Your task to perform on an android device: open app "LinkedIn" (install if not already installed) Image 0: 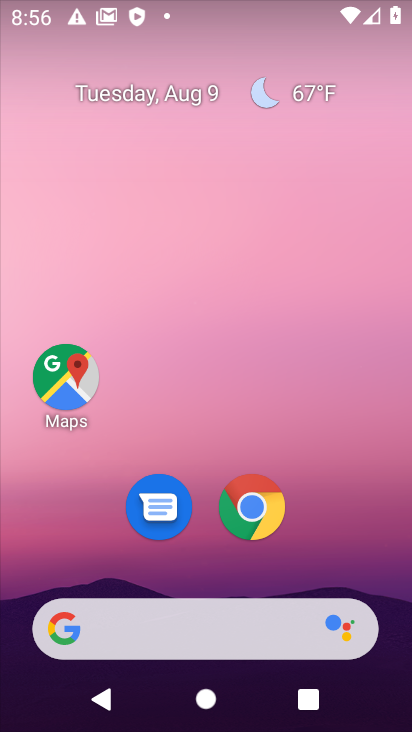
Step 0: drag from (139, 613) to (219, 0)
Your task to perform on an android device: open app "LinkedIn" (install if not already installed) Image 1: 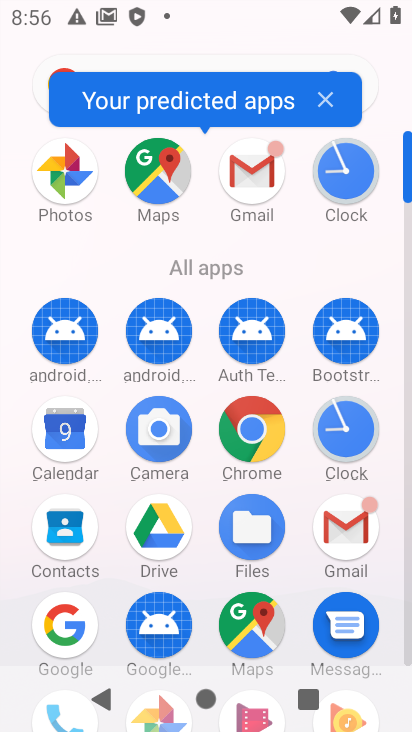
Step 1: drag from (268, 425) to (297, 169)
Your task to perform on an android device: open app "LinkedIn" (install if not already installed) Image 2: 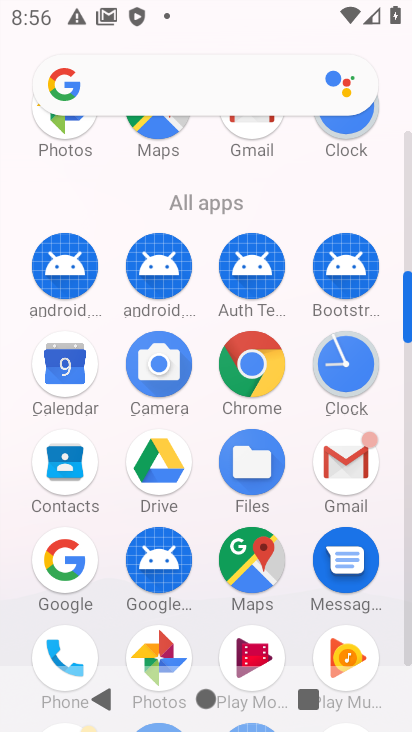
Step 2: drag from (214, 632) to (300, 113)
Your task to perform on an android device: open app "LinkedIn" (install if not already installed) Image 3: 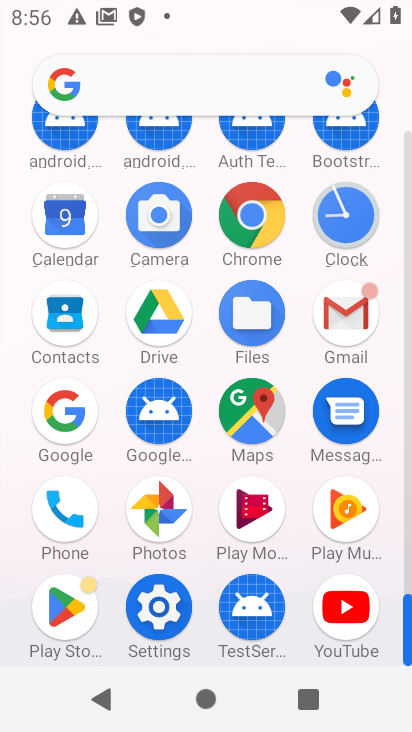
Step 3: click (55, 596)
Your task to perform on an android device: open app "LinkedIn" (install if not already installed) Image 4: 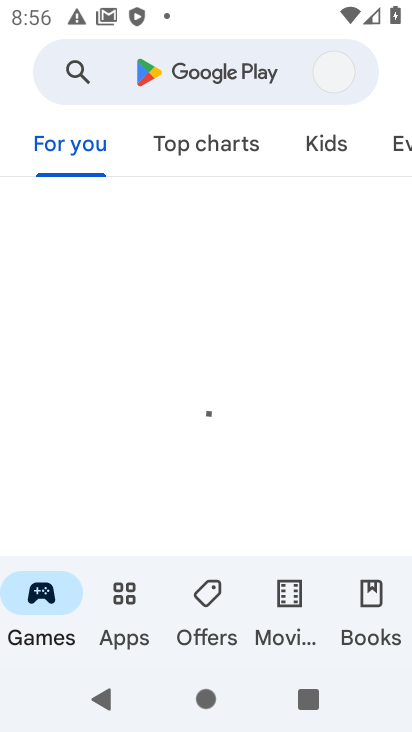
Step 4: click (215, 80)
Your task to perform on an android device: open app "LinkedIn" (install if not already installed) Image 5: 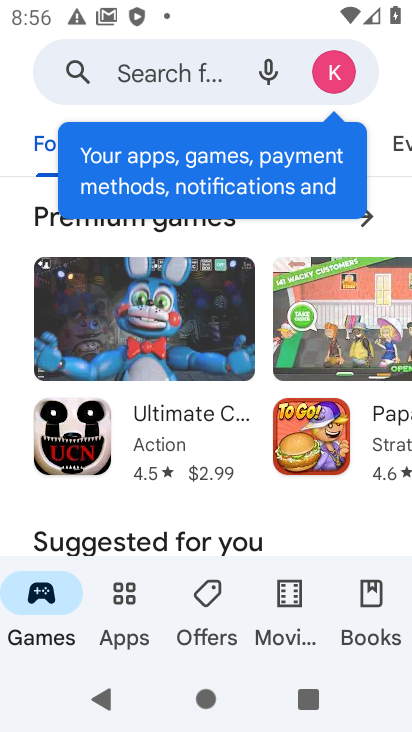
Step 5: click (156, 73)
Your task to perform on an android device: open app "LinkedIn" (install if not already installed) Image 6: 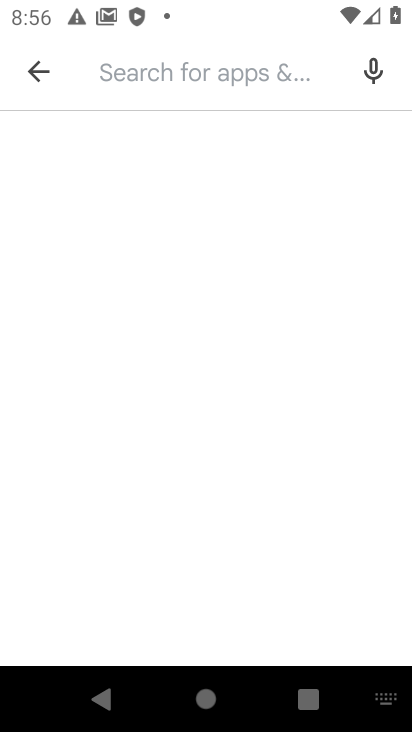
Step 6: type "LinkedIn"
Your task to perform on an android device: open app "LinkedIn" (install if not already installed) Image 7: 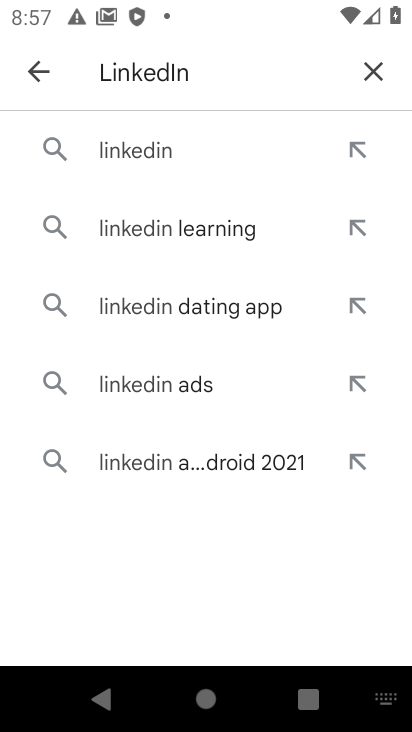
Step 7: click (152, 154)
Your task to perform on an android device: open app "LinkedIn" (install if not already installed) Image 8: 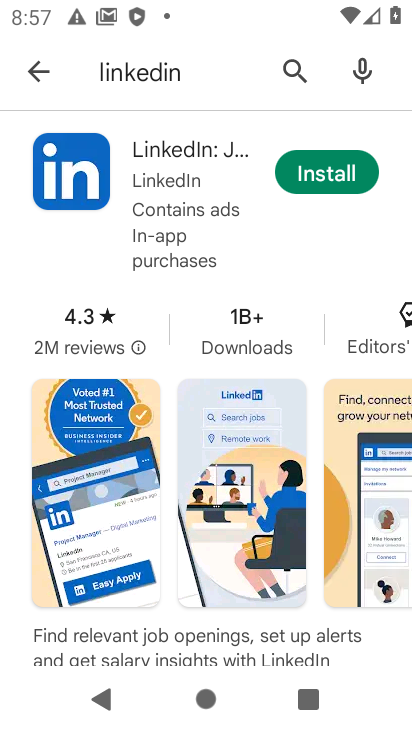
Step 8: click (303, 178)
Your task to perform on an android device: open app "LinkedIn" (install if not already installed) Image 9: 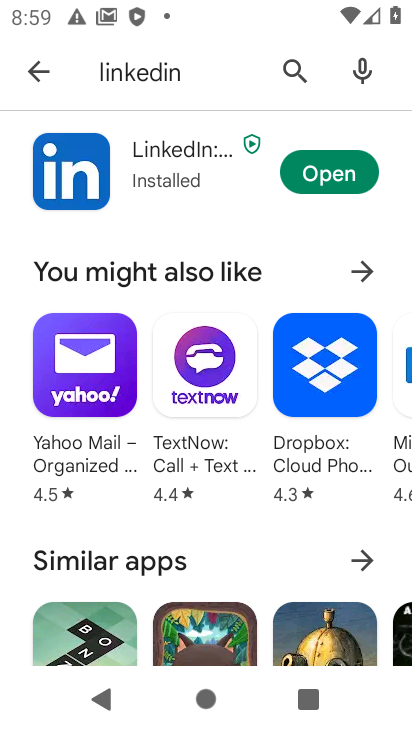
Step 9: click (360, 180)
Your task to perform on an android device: open app "LinkedIn" (install if not already installed) Image 10: 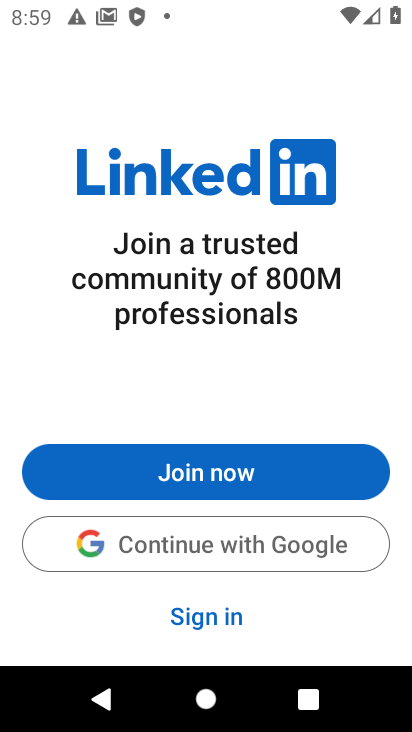
Step 10: click (189, 569)
Your task to perform on an android device: open app "LinkedIn" (install if not already installed) Image 11: 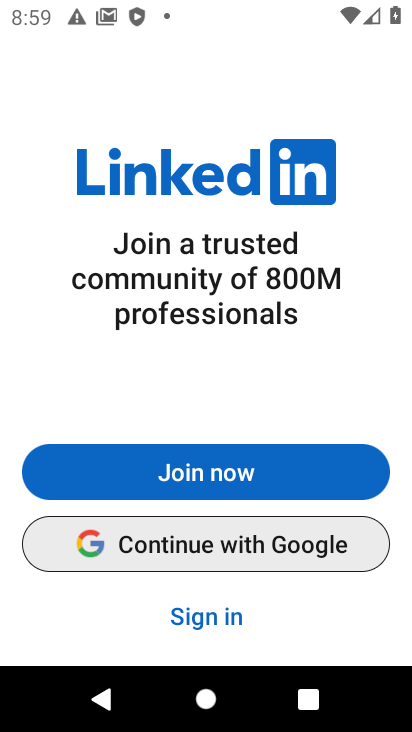
Step 11: click (185, 556)
Your task to perform on an android device: open app "LinkedIn" (install if not already installed) Image 12: 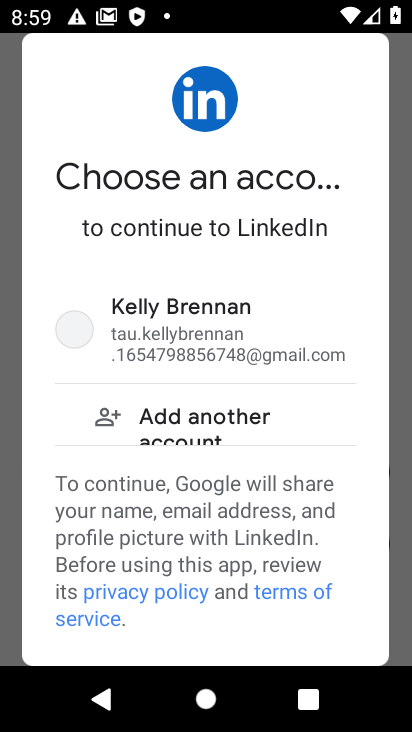
Step 12: drag from (159, 581) to (224, 237)
Your task to perform on an android device: open app "LinkedIn" (install if not already installed) Image 13: 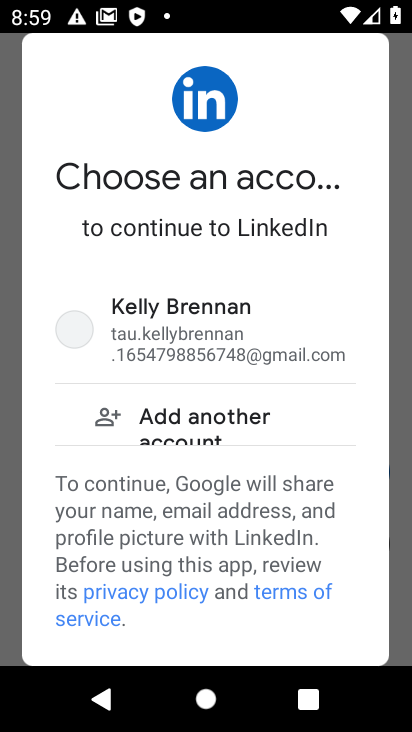
Step 13: click (161, 315)
Your task to perform on an android device: open app "LinkedIn" (install if not already installed) Image 14: 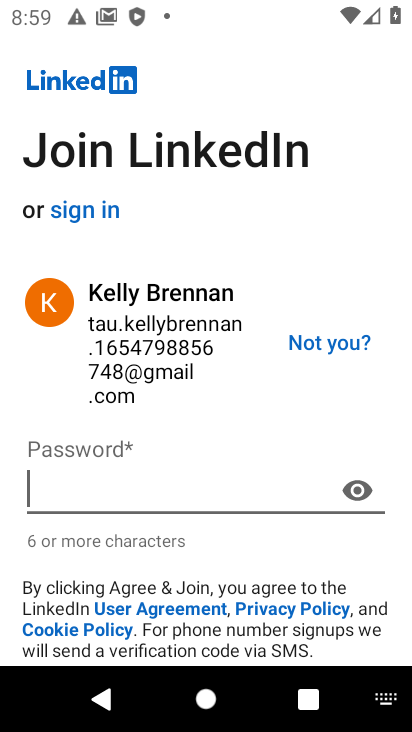
Step 14: drag from (129, 603) to (182, 273)
Your task to perform on an android device: open app "LinkedIn" (install if not already installed) Image 15: 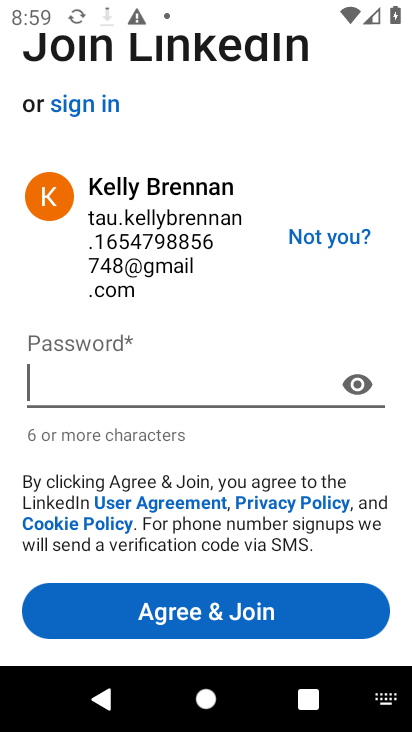
Step 15: drag from (182, 277) to (130, 504)
Your task to perform on an android device: open app "LinkedIn" (install if not already installed) Image 16: 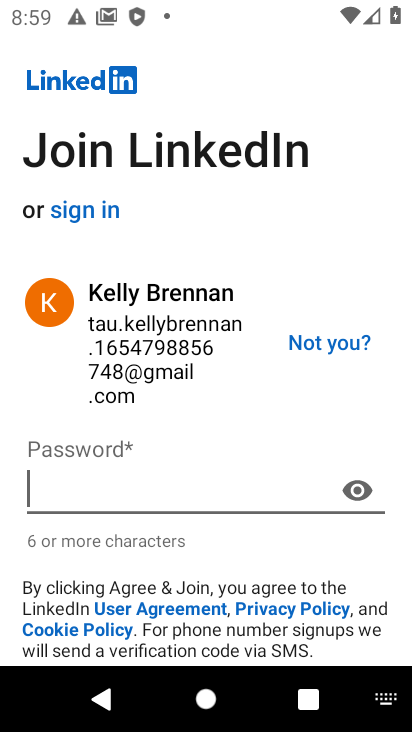
Step 16: click (315, 346)
Your task to perform on an android device: open app "LinkedIn" (install if not already installed) Image 17: 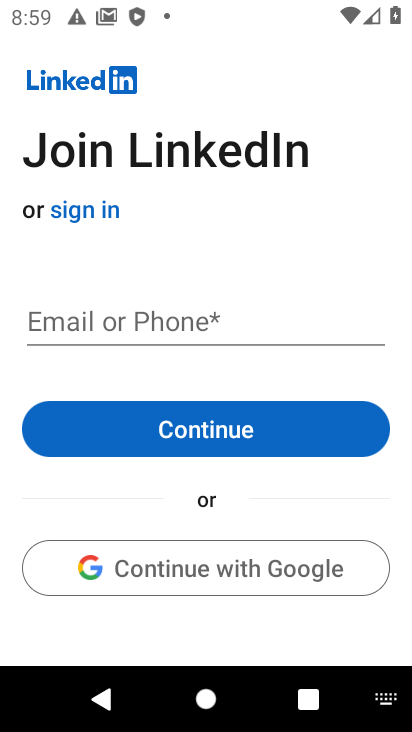
Step 17: click (241, 567)
Your task to perform on an android device: open app "LinkedIn" (install if not already installed) Image 18: 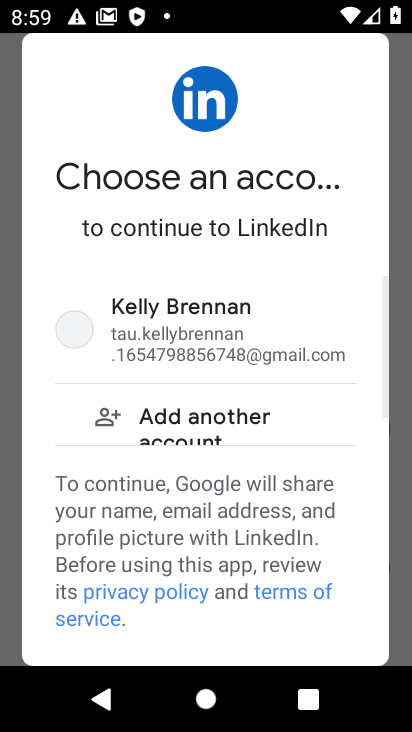
Step 18: task complete